Your task to perform on an android device: turn on bluetooth scan Image 0: 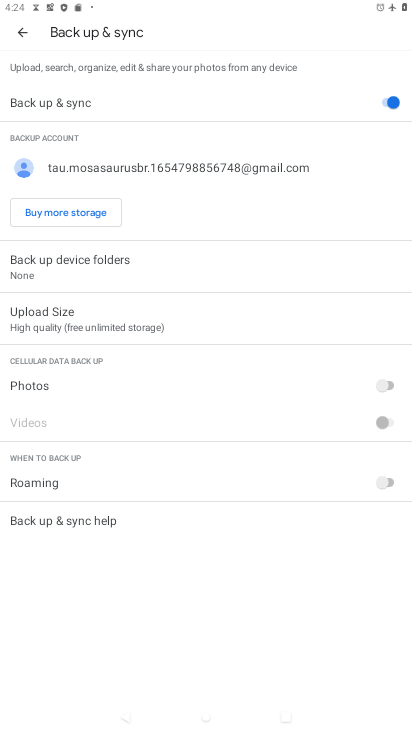
Step 0: press home button
Your task to perform on an android device: turn on bluetooth scan Image 1: 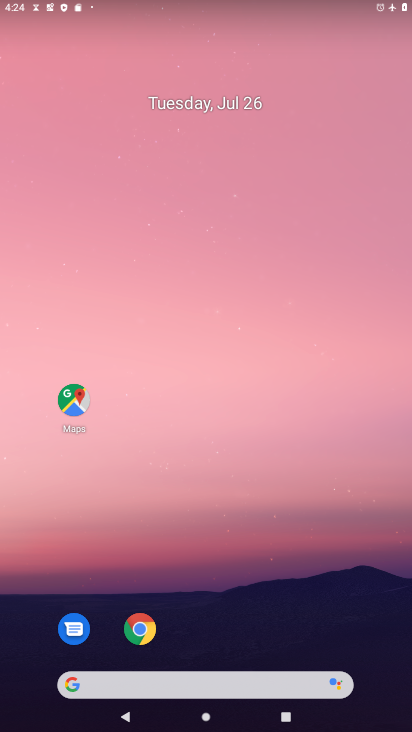
Step 1: drag from (243, 683) to (265, 186)
Your task to perform on an android device: turn on bluetooth scan Image 2: 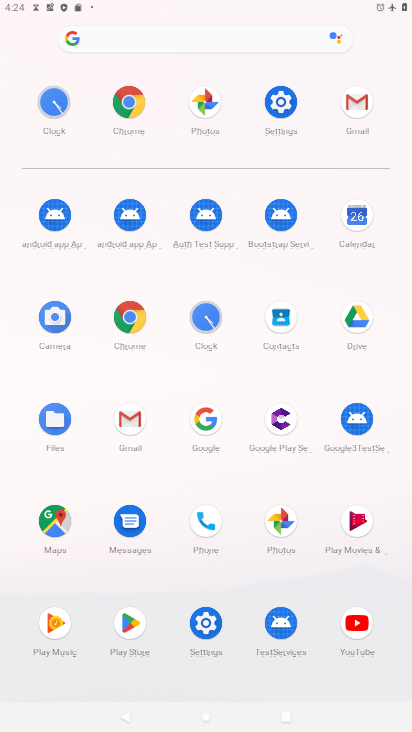
Step 2: click (283, 97)
Your task to perform on an android device: turn on bluetooth scan Image 3: 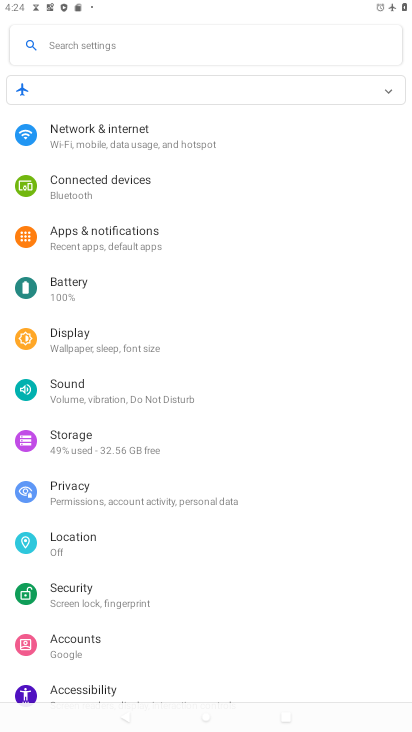
Step 3: click (70, 533)
Your task to perform on an android device: turn on bluetooth scan Image 4: 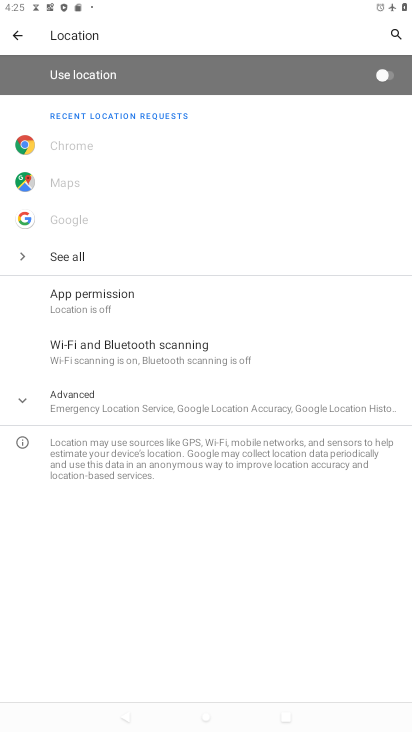
Step 4: click (96, 350)
Your task to perform on an android device: turn on bluetooth scan Image 5: 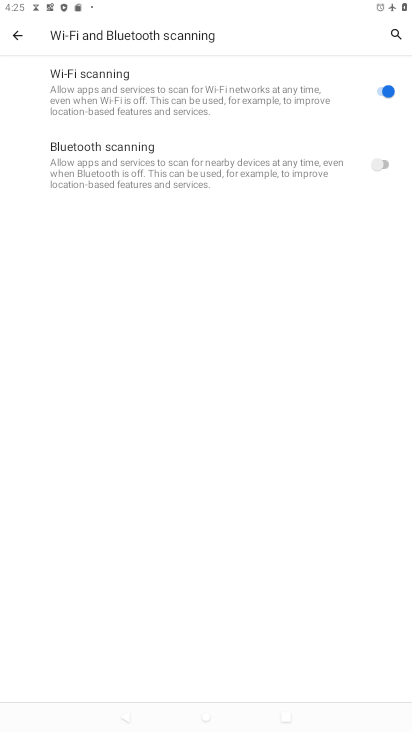
Step 5: click (379, 164)
Your task to perform on an android device: turn on bluetooth scan Image 6: 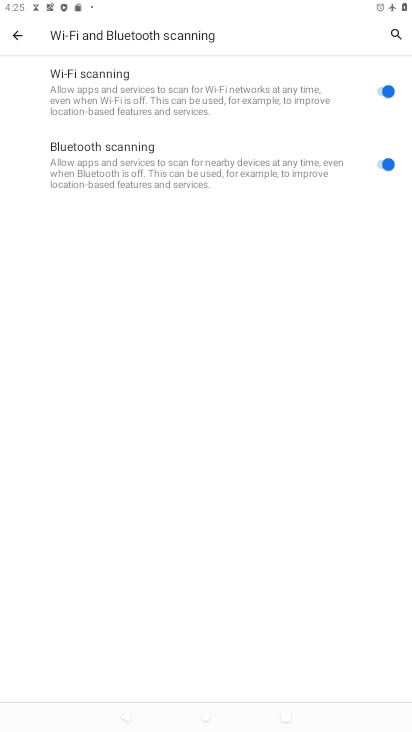
Step 6: task complete